Your task to perform on an android device: set the timer Image 0: 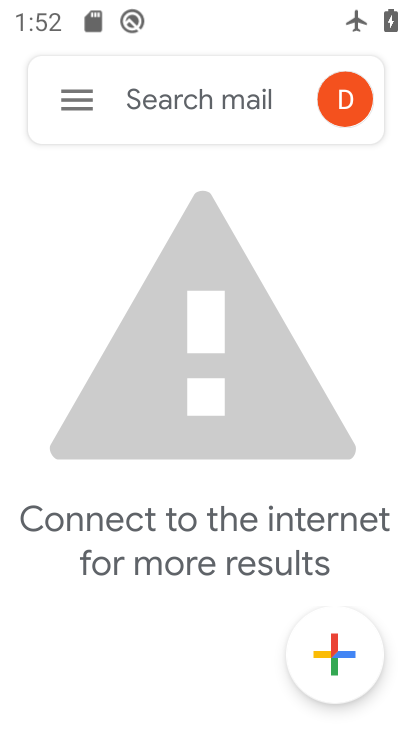
Step 0: press home button
Your task to perform on an android device: set the timer Image 1: 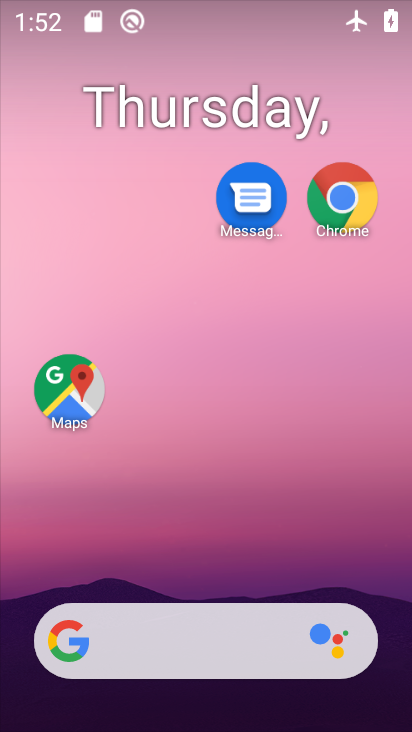
Step 1: drag from (219, 434) to (274, 42)
Your task to perform on an android device: set the timer Image 2: 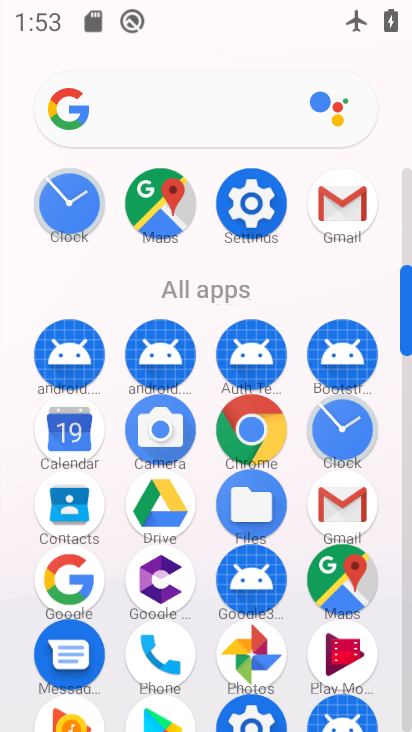
Step 2: click (348, 437)
Your task to perform on an android device: set the timer Image 3: 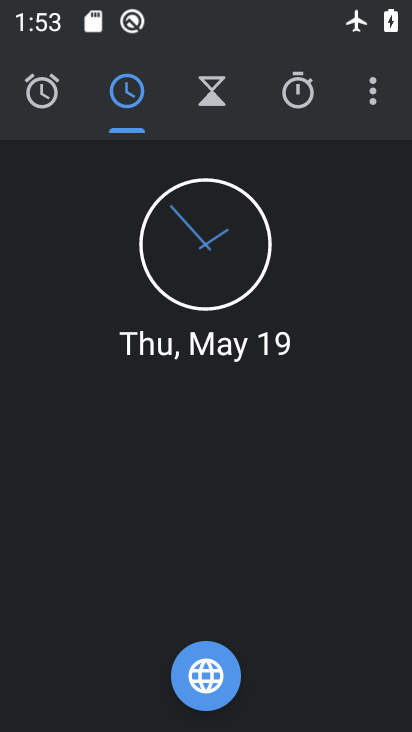
Step 3: click (218, 99)
Your task to perform on an android device: set the timer Image 4: 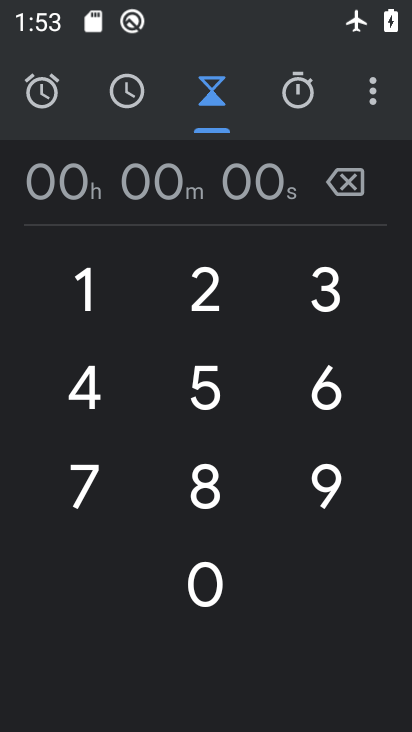
Step 4: click (214, 279)
Your task to perform on an android device: set the timer Image 5: 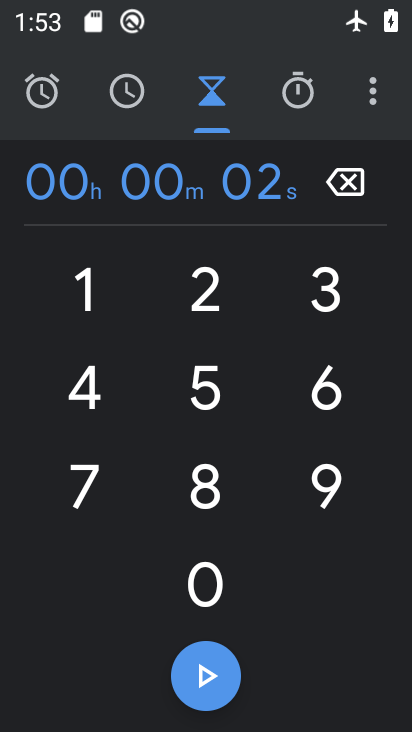
Step 5: click (197, 602)
Your task to perform on an android device: set the timer Image 6: 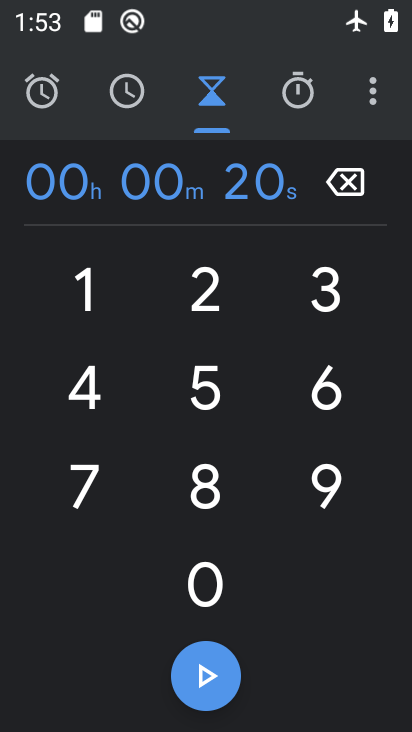
Step 6: click (96, 301)
Your task to perform on an android device: set the timer Image 7: 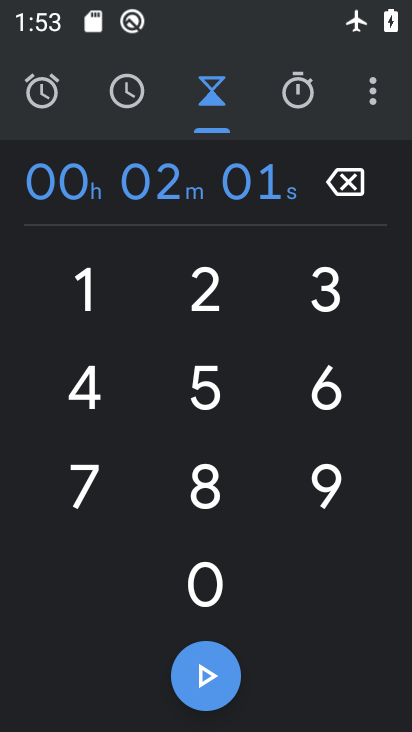
Step 7: click (199, 578)
Your task to perform on an android device: set the timer Image 8: 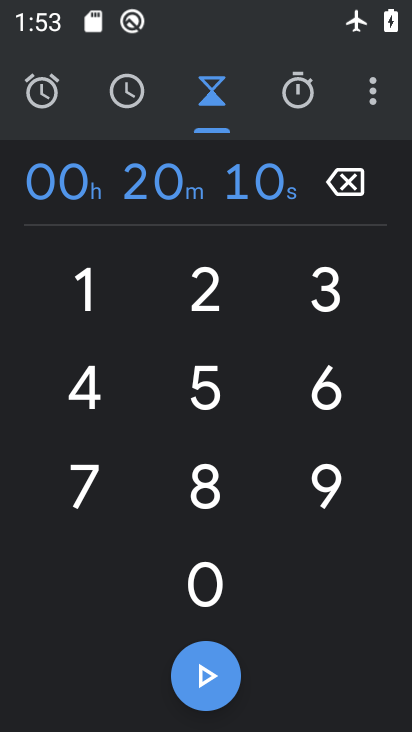
Step 8: click (226, 684)
Your task to perform on an android device: set the timer Image 9: 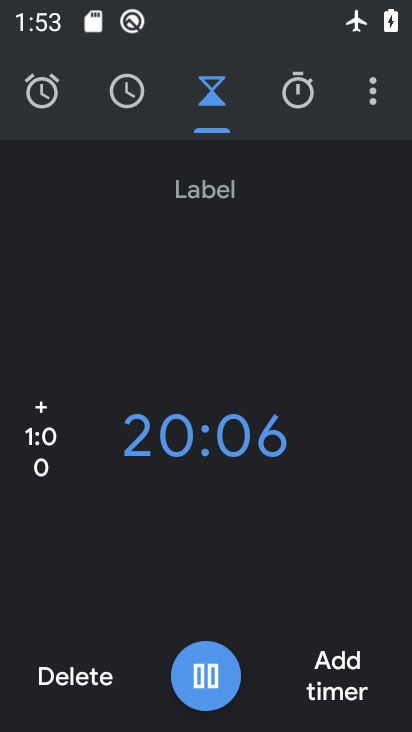
Step 9: task complete